Your task to perform on an android device: See recent photos Image 0: 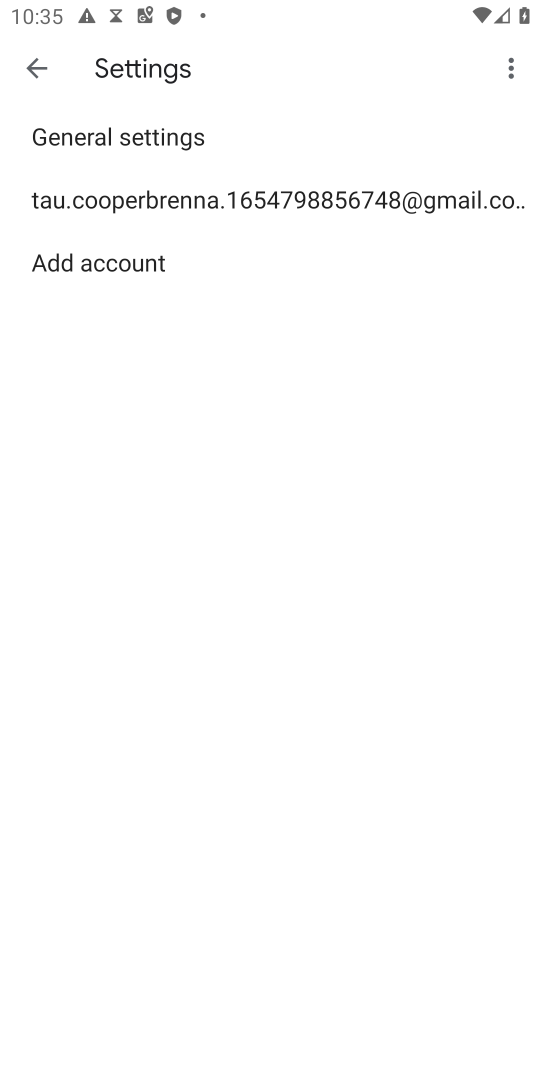
Step 0: click (23, 62)
Your task to perform on an android device: See recent photos Image 1: 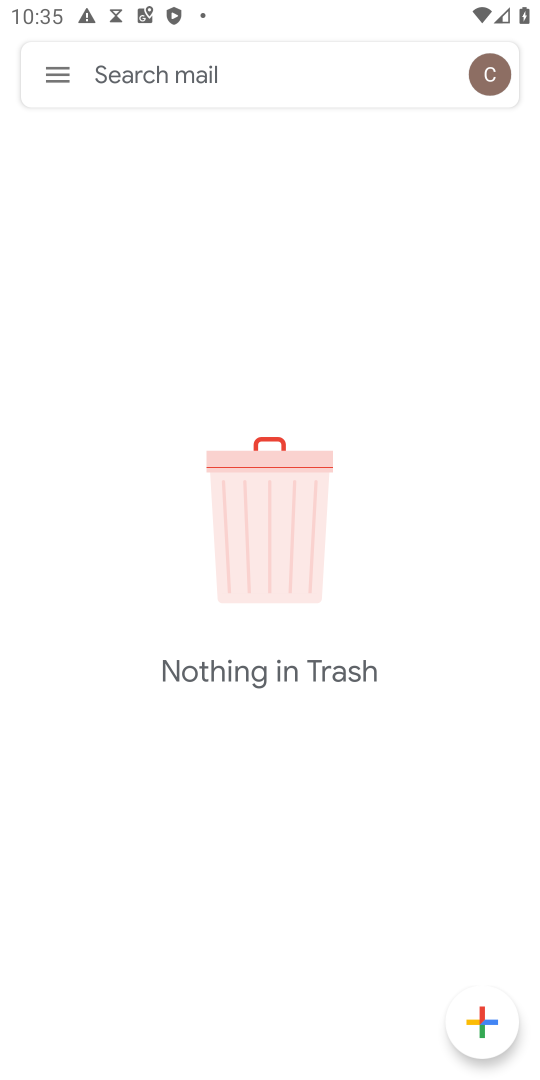
Step 1: press home button
Your task to perform on an android device: See recent photos Image 2: 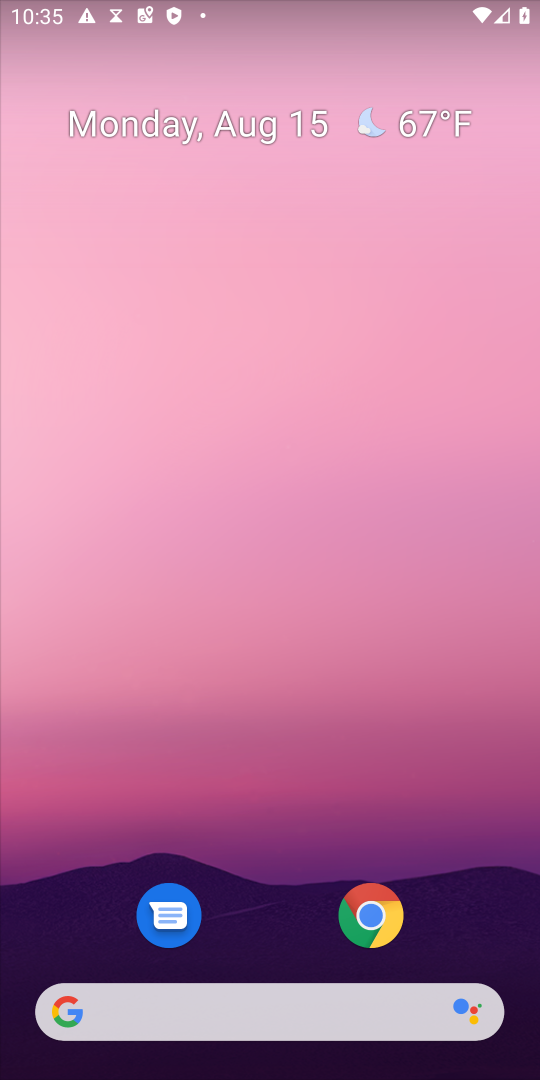
Step 2: drag from (248, 880) to (287, 333)
Your task to perform on an android device: See recent photos Image 3: 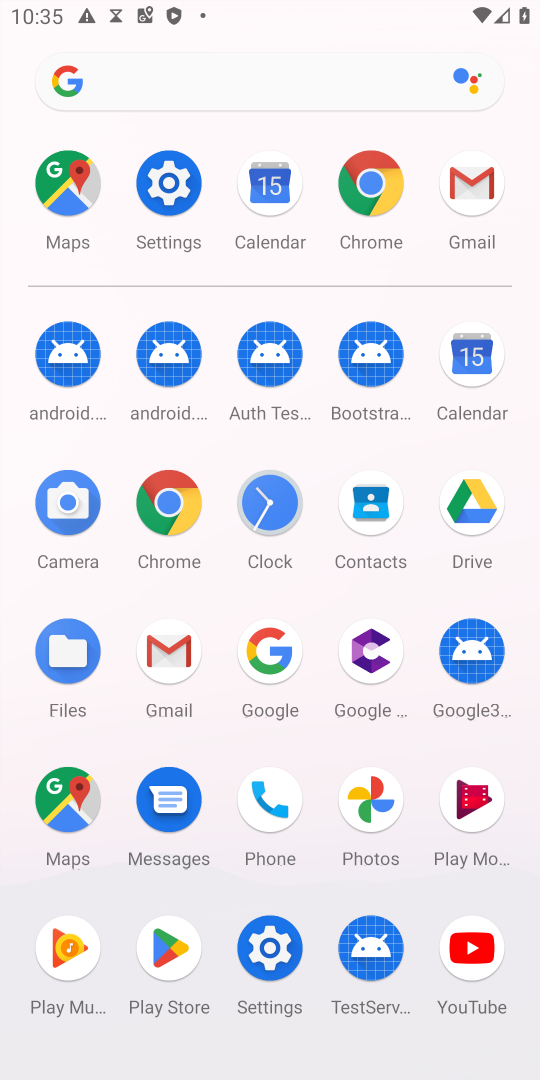
Step 3: click (379, 800)
Your task to perform on an android device: See recent photos Image 4: 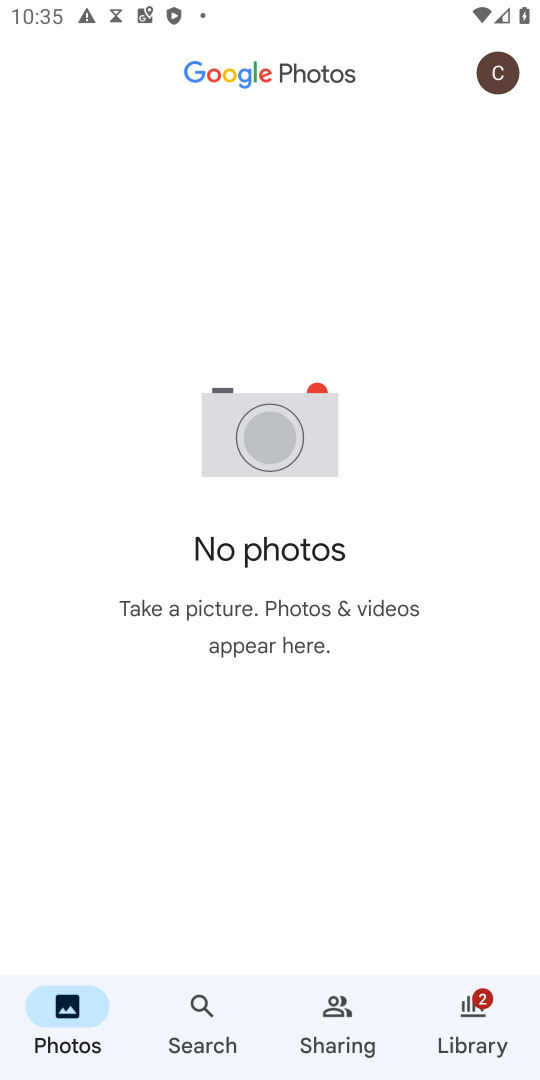
Step 4: task complete